Your task to perform on an android device: Do I have any events tomorrow? Image 0: 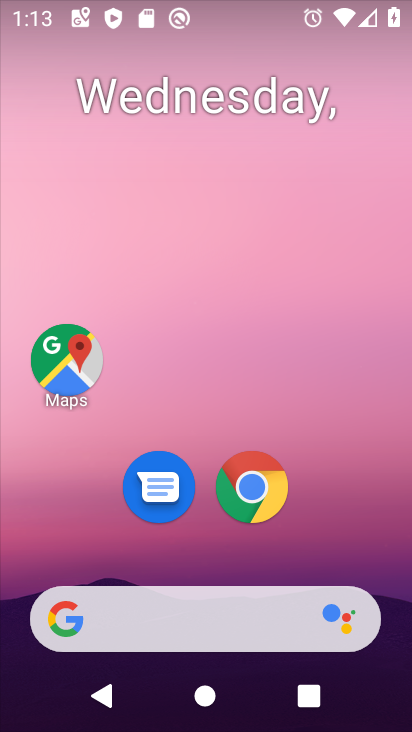
Step 0: drag from (218, 570) to (313, 50)
Your task to perform on an android device: Do I have any events tomorrow? Image 1: 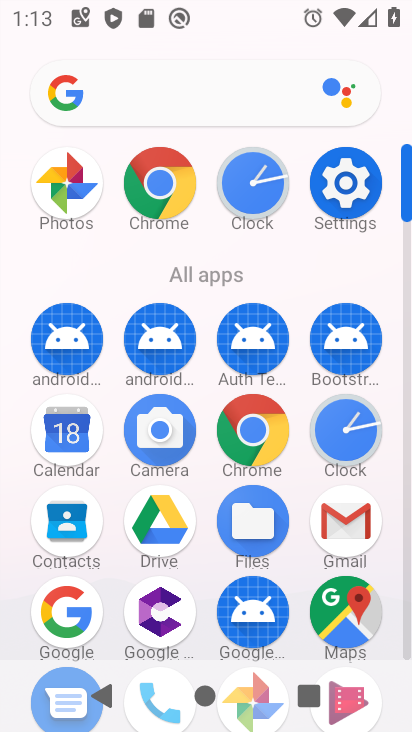
Step 1: click (67, 433)
Your task to perform on an android device: Do I have any events tomorrow? Image 2: 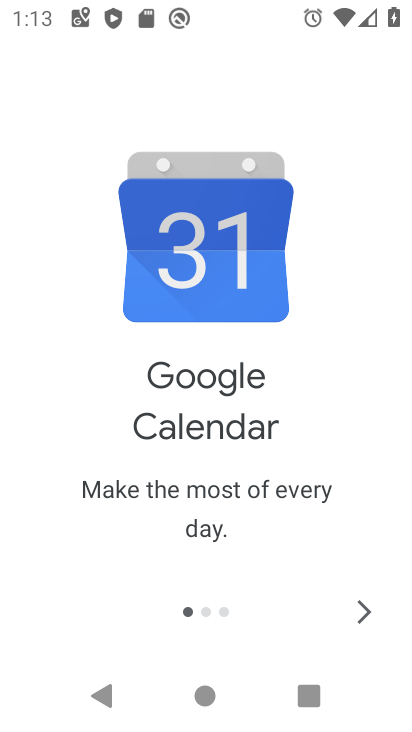
Step 2: click (369, 605)
Your task to perform on an android device: Do I have any events tomorrow? Image 3: 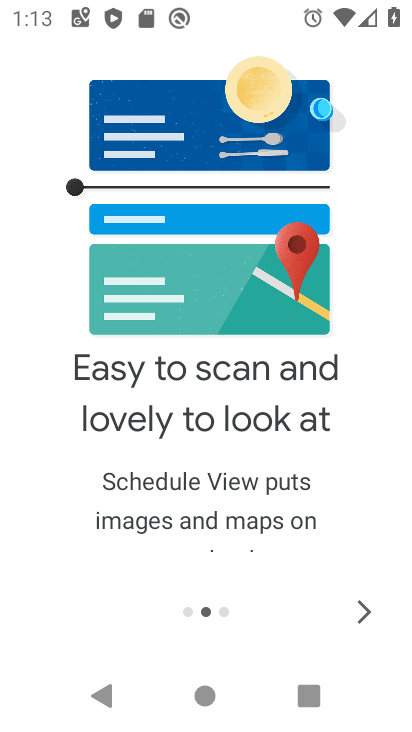
Step 3: click (365, 607)
Your task to perform on an android device: Do I have any events tomorrow? Image 4: 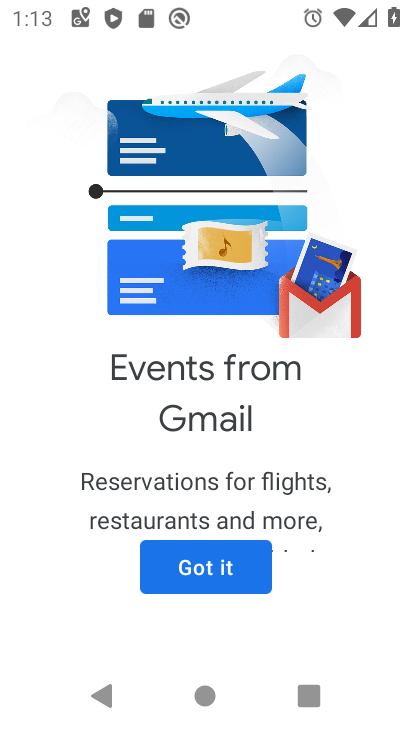
Step 4: click (239, 573)
Your task to perform on an android device: Do I have any events tomorrow? Image 5: 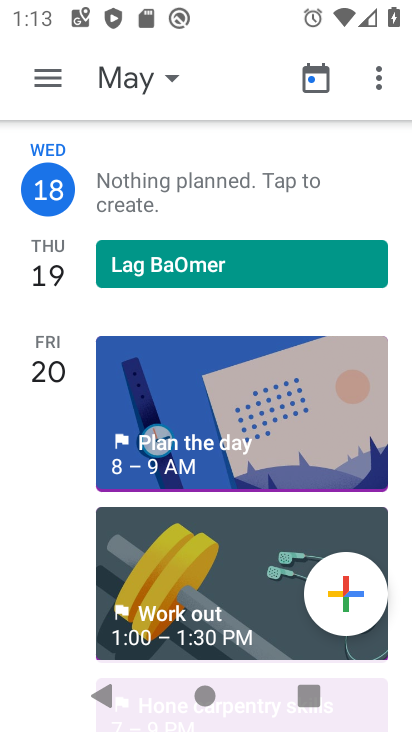
Step 5: click (61, 69)
Your task to perform on an android device: Do I have any events tomorrow? Image 6: 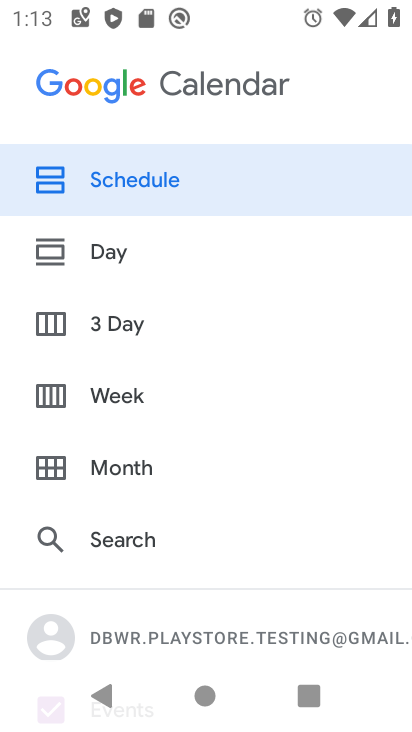
Step 6: drag from (136, 487) to (183, 130)
Your task to perform on an android device: Do I have any events tomorrow? Image 7: 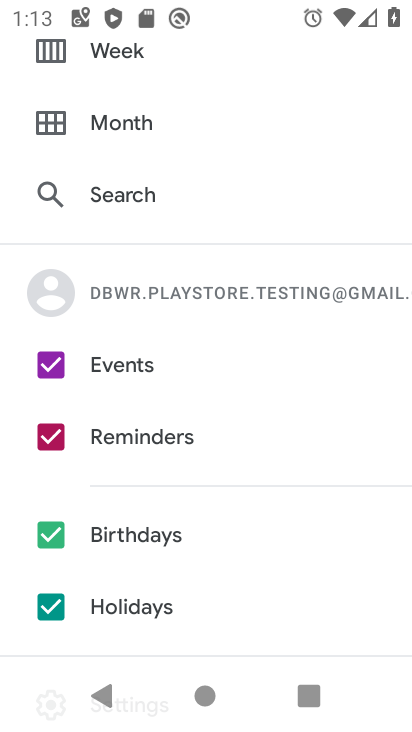
Step 7: click (86, 437)
Your task to perform on an android device: Do I have any events tomorrow? Image 8: 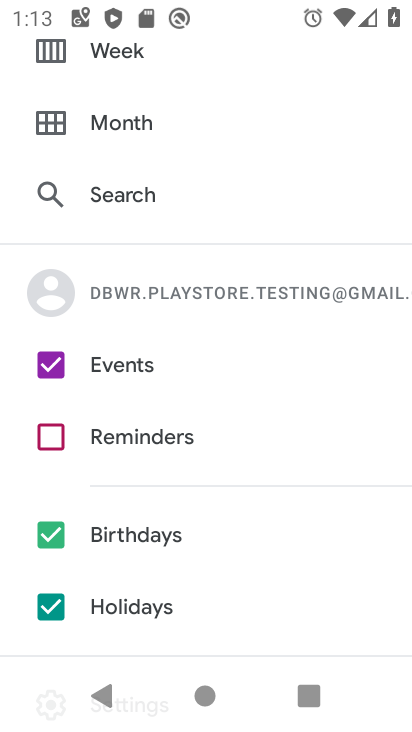
Step 8: click (92, 529)
Your task to perform on an android device: Do I have any events tomorrow? Image 9: 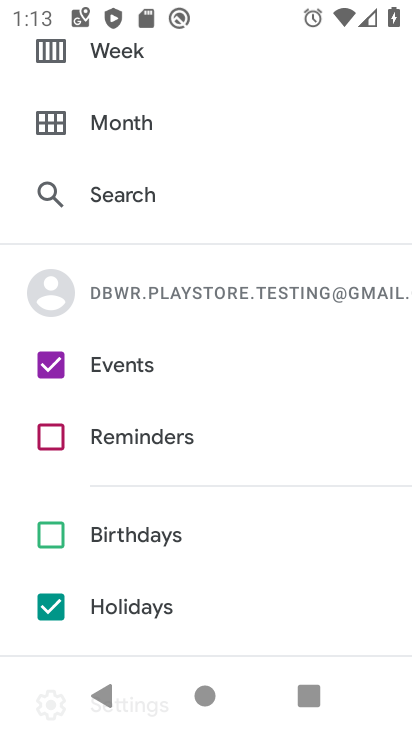
Step 9: click (71, 605)
Your task to perform on an android device: Do I have any events tomorrow? Image 10: 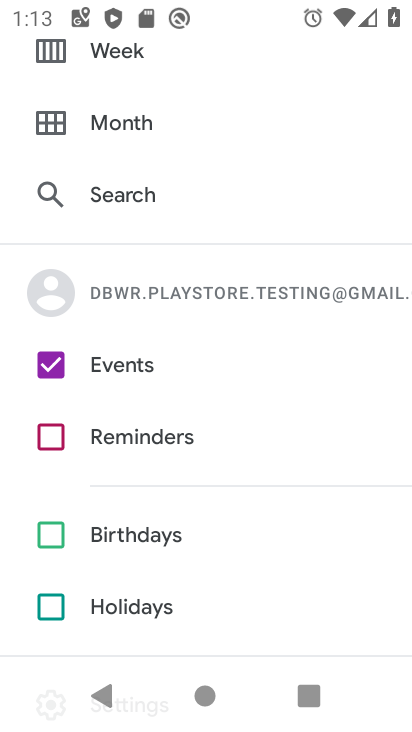
Step 10: drag from (251, 221) to (276, 483)
Your task to perform on an android device: Do I have any events tomorrow? Image 11: 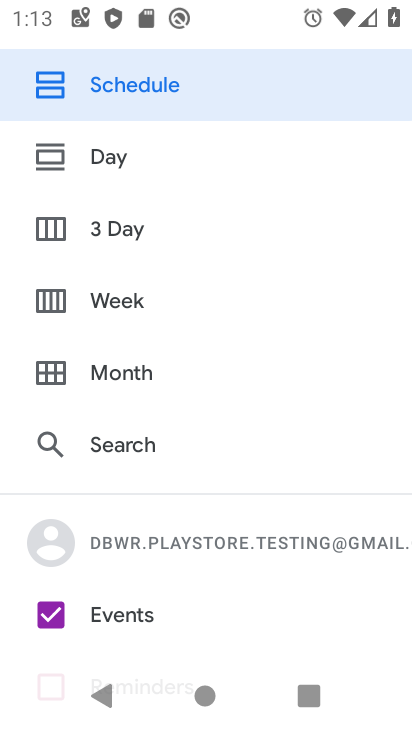
Step 11: click (139, 236)
Your task to perform on an android device: Do I have any events tomorrow? Image 12: 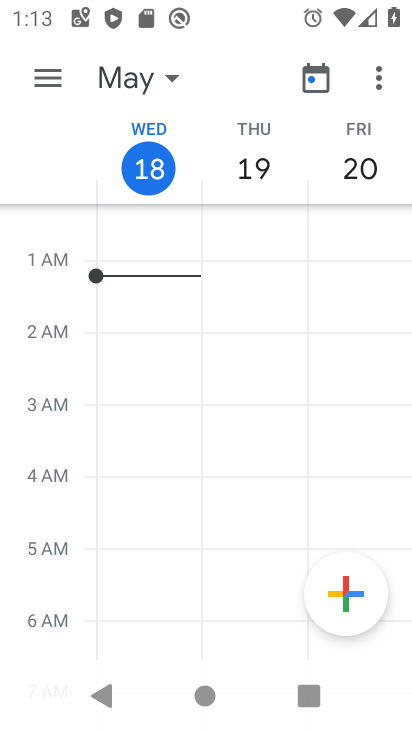
Step 12: task complete